Your task to perform on an android device: Open calendar and show me the first week of next month Image 0: 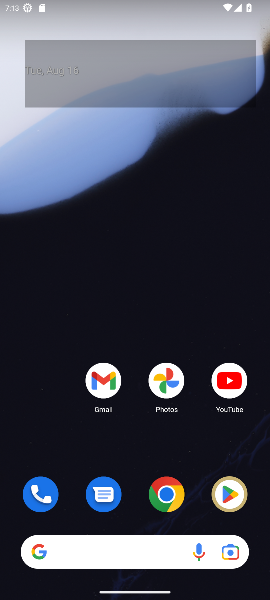
Step 0: drag from (74, 449) to (80, 185)
Your task to perform on an android device: Open calendar and show me the first week of next month Image 1: 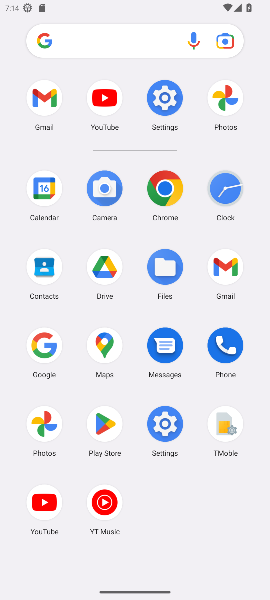
Step 1: click (53, 192)
Your task to perform on an android device: Open calendar and show me the first week of next month Image 2: 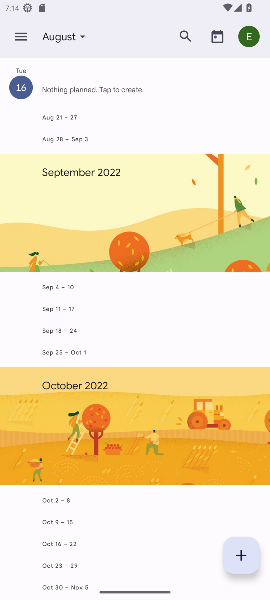
Step 2: task complete